Your task to perform on an android device: see creations saved in the google photos Image 0: 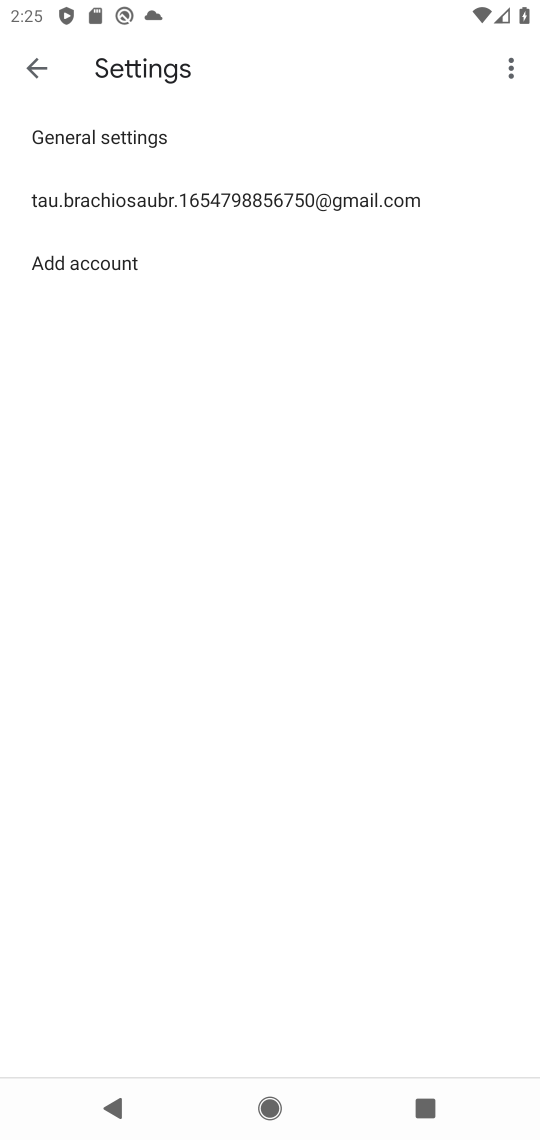
Step 0: press home button
Your task to perform on an android device: see creations saved in the google photos Image 1: 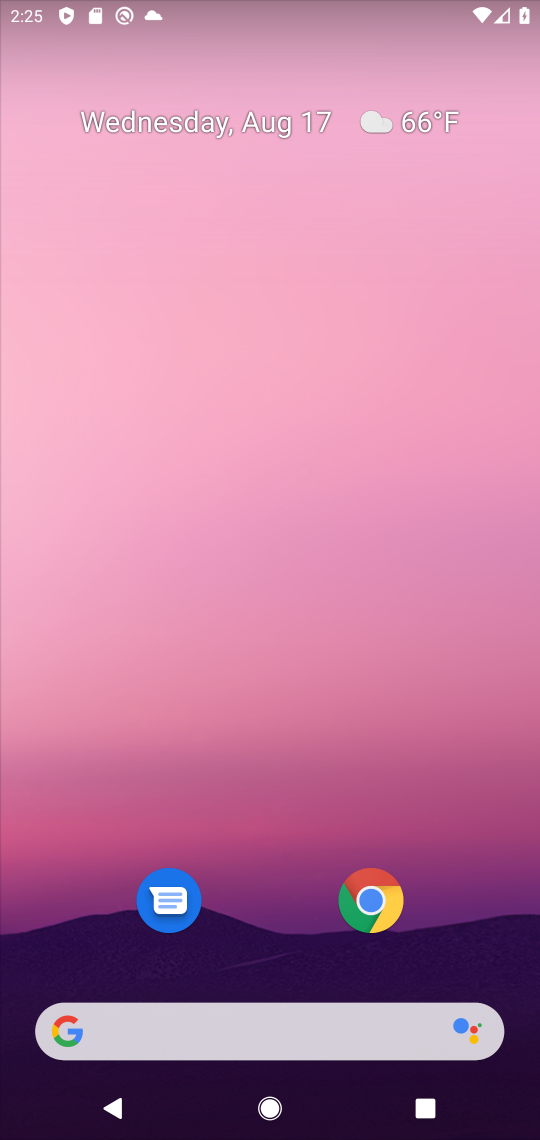
Step 1: drag from (355, 584) to (434, 166)
Your task to perform on an android device: see creations saved in the google photos Image 2: 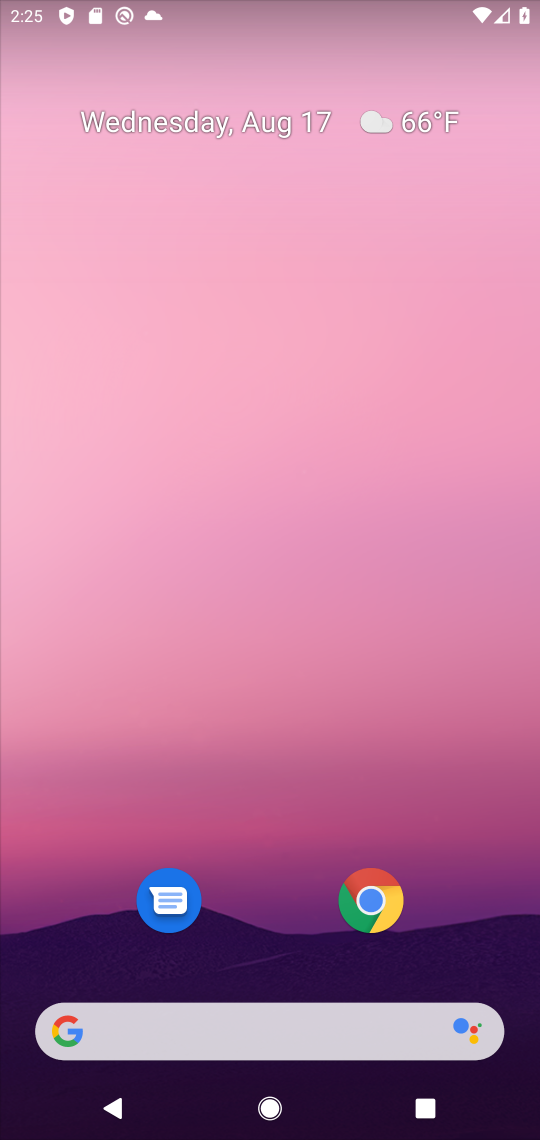
Step 2: drag from (275, 1020) to (466, 83)
Your task to perform on an android device: see creations saved in the google photos Image 3: 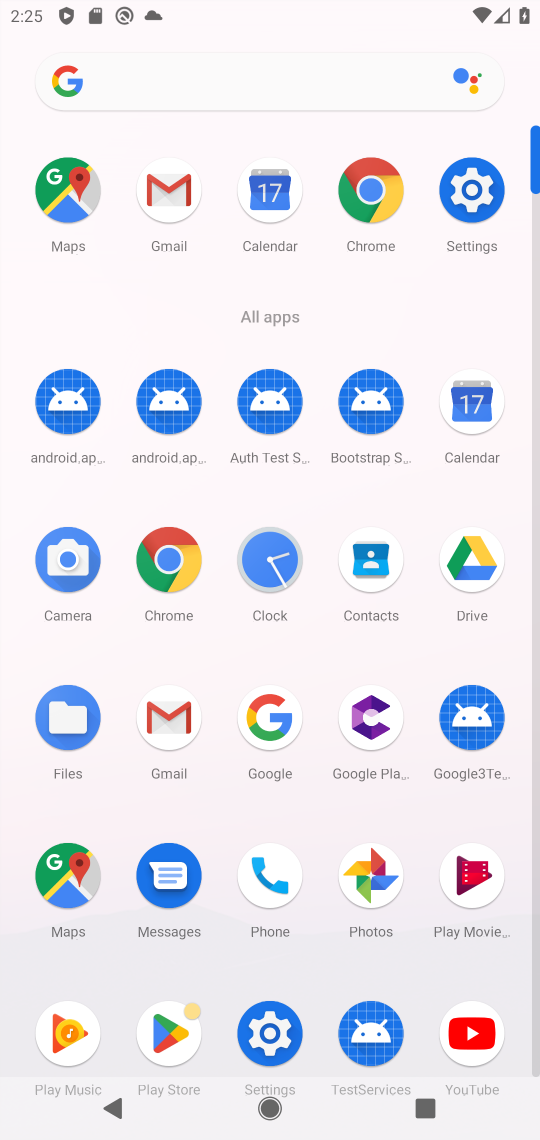
Step 3: click (370, 885)
Your task to perform on an android device: see creations saved in the google photos Image 4: 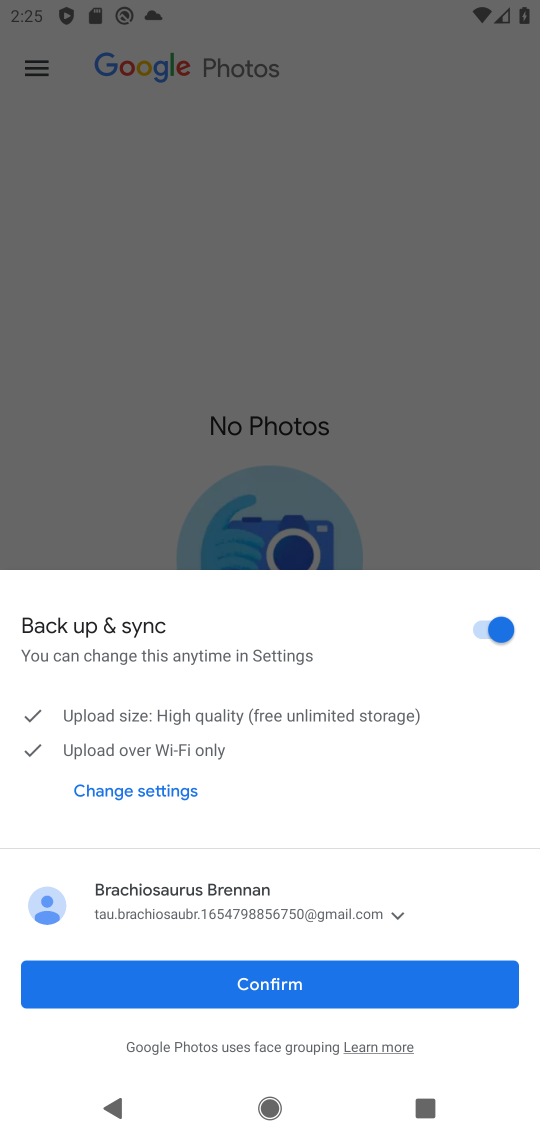
Step 4: click (294, 983)
Your task to perform on an android device: see creations saved in the google photos Image 5: 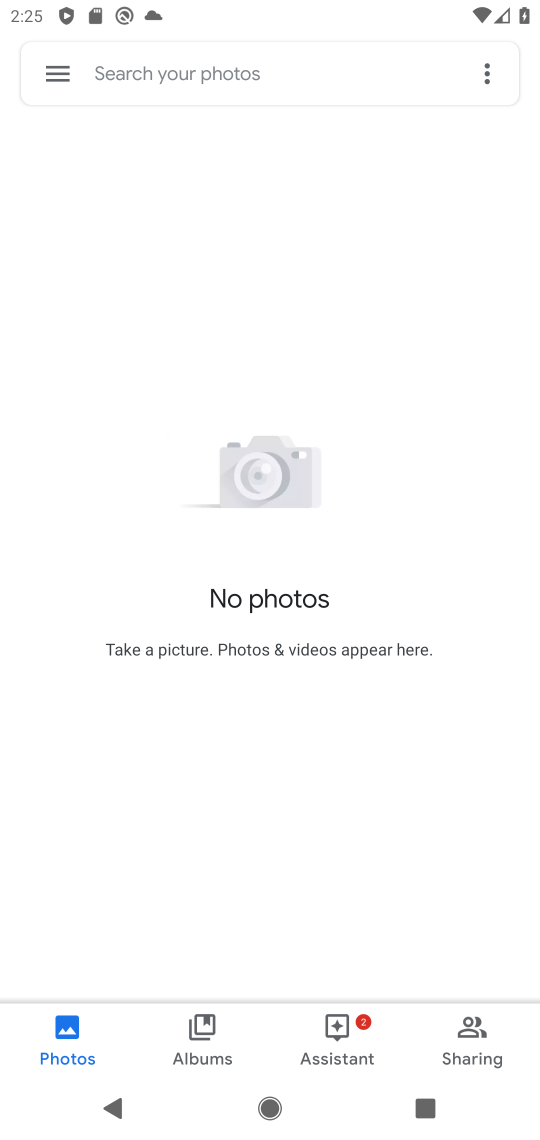
Step 5: click (206, 1042)
Your task to perform on an android device: see creations saved in the google photos Image 6: 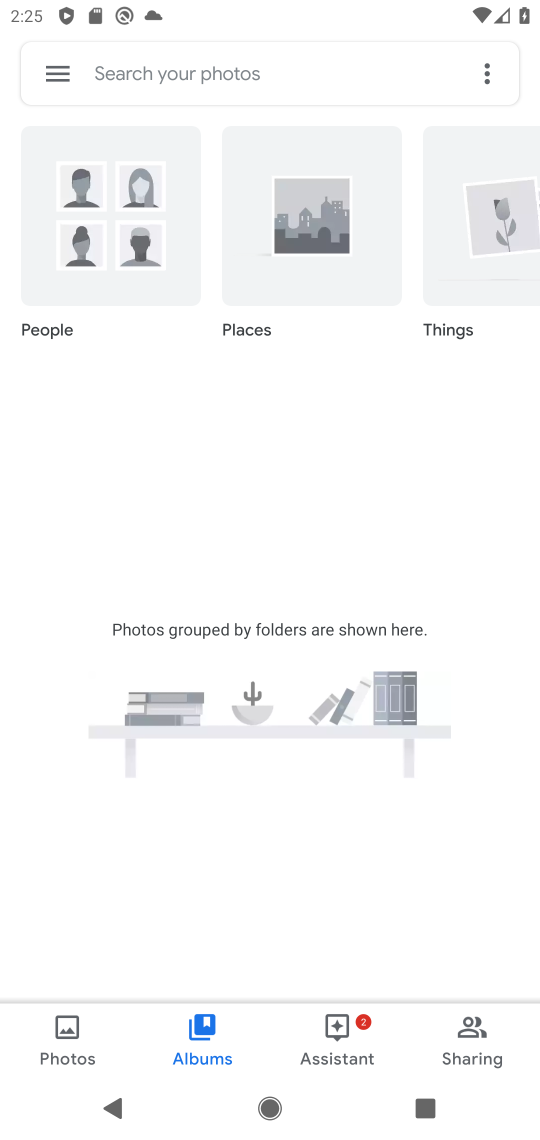
Step 6: click (159, 76)
Your task to perform on an android device: see creations saved in the google photos Image 7: 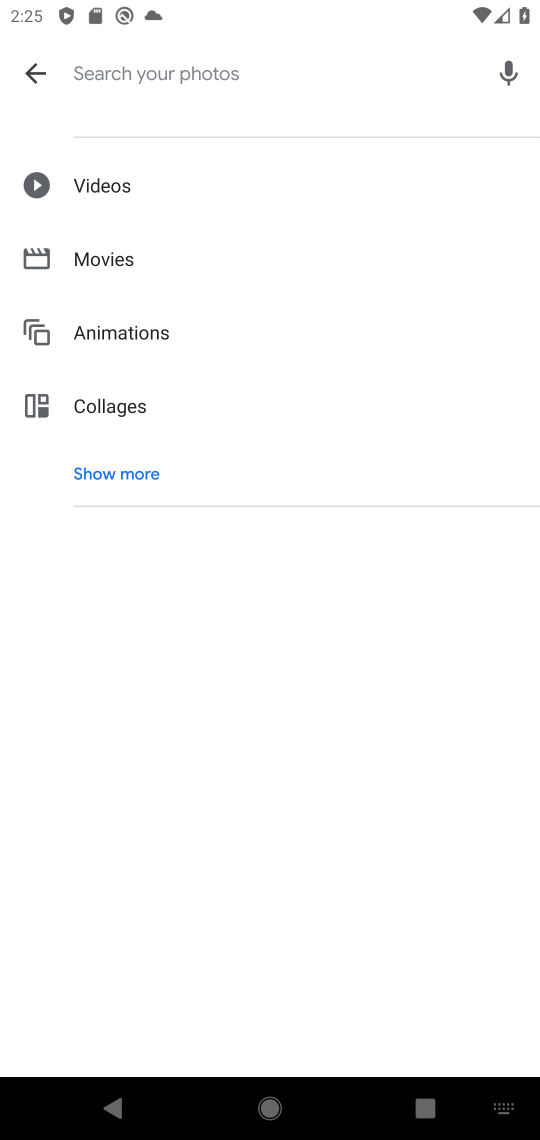
Step 7: click (130, 464)
Your task to perform on an android device: see creations saved in the google photos Image 8: 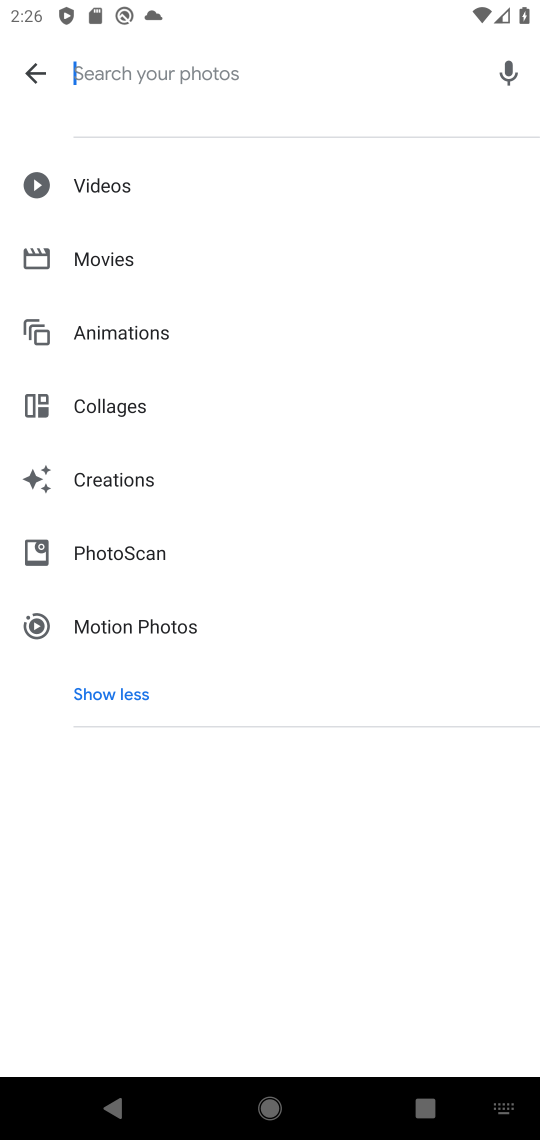
Step 8: click (120, 465)
Your task to perform on an android device: see creations saved in the google photos Image 9: 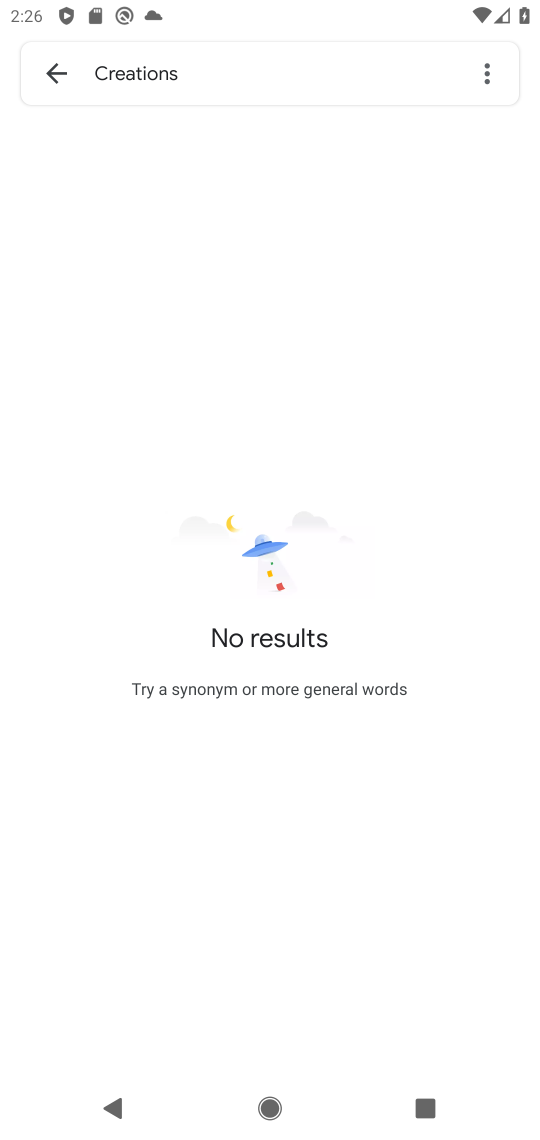
Step 9: task complete